Your task to perform on an android device: Search for vegetarian restaurants on Maps Image 0: 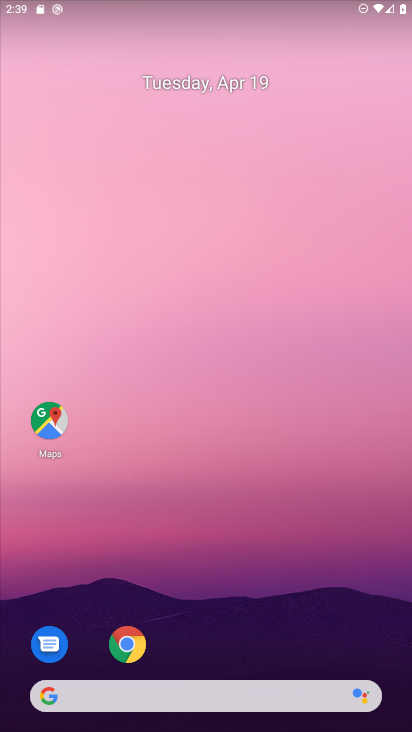
Step 0: press home button
Your task to perform on an android device: Search for vegetarian restaurants on Maps Image 1: 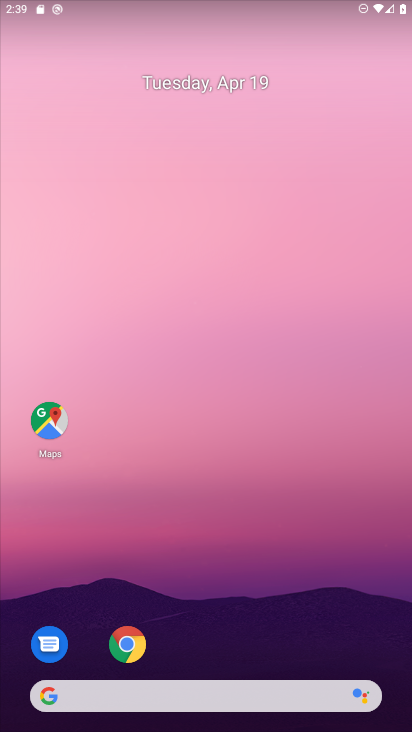
Step 1: drag from (192, 602) to (123, 73)
Your task to perform on an android device: Search for vegetarian restaurants on Maps Image 2: 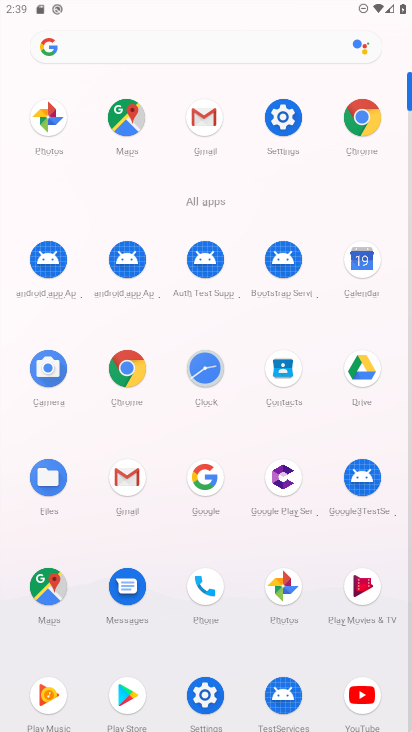
Step 2: click (117, 125)
Your task to perform on an android device: Search for vegetarian restaurants on Maps Image 3: 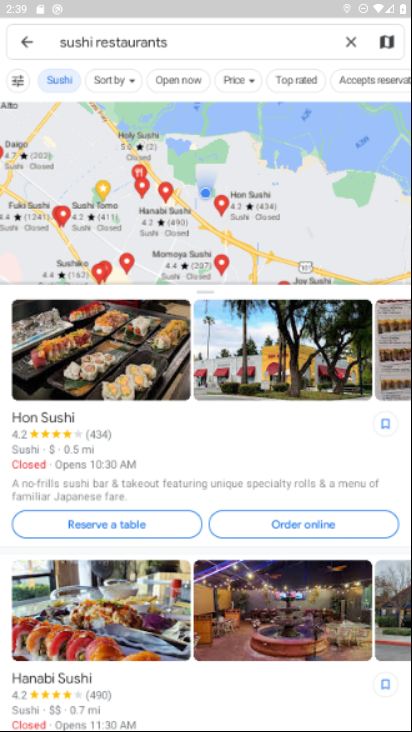
Step 3: click (352, 42)
Your task to perform on an android device: Search for vegetarian restaurants on Maps Image 4: 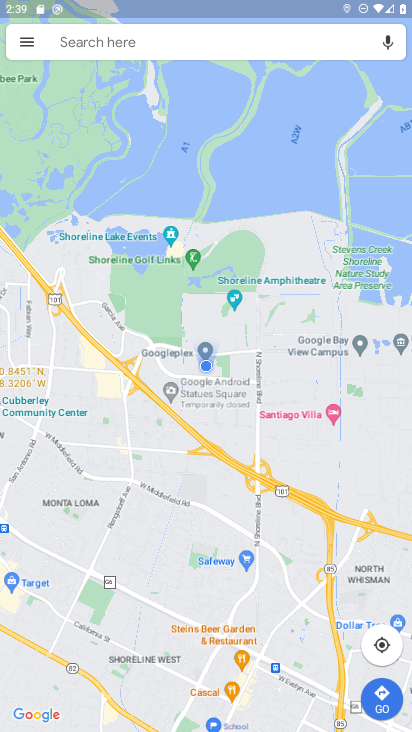
Step 4: click (255, 38)
Your task to perform on an android device: Search for vegetarian restaurants on Maps Image 5: 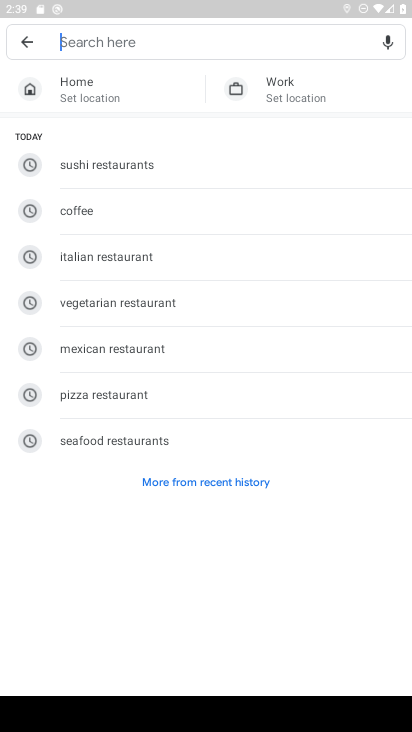
Step 5: click (143, 296)
Your task to perform on an android device: Search for vegetarian restaurants on Maps Image 6: 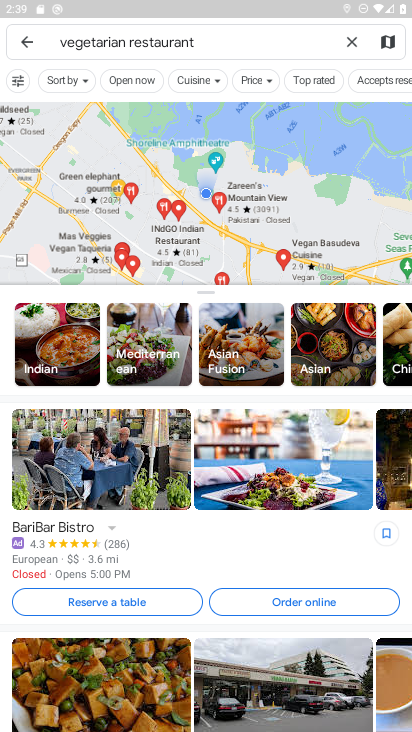
Step 6: task complete